Your task to perform on an android device: Open Android settings Image 0: 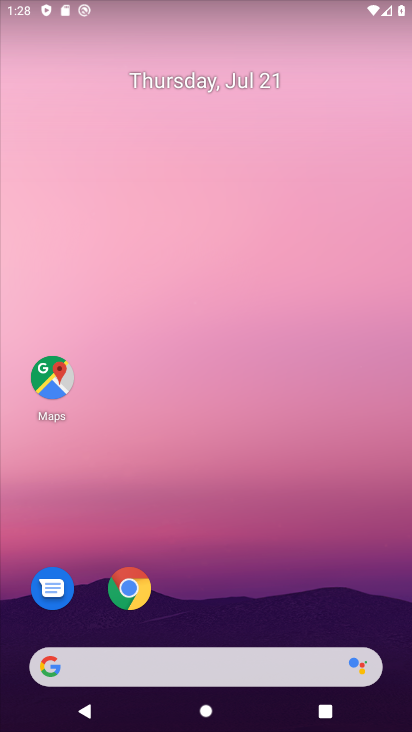
Step 0: drag from (154, 12) to (345, 188)
Your task to perform on an android device: Open Android settings Image 1: 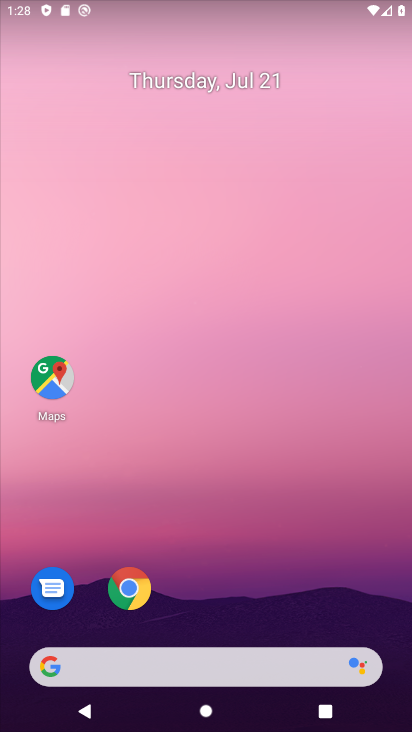
Step 1: task complete